Your task to perform on an android device: open a bookmark in the chrome app Image 0: 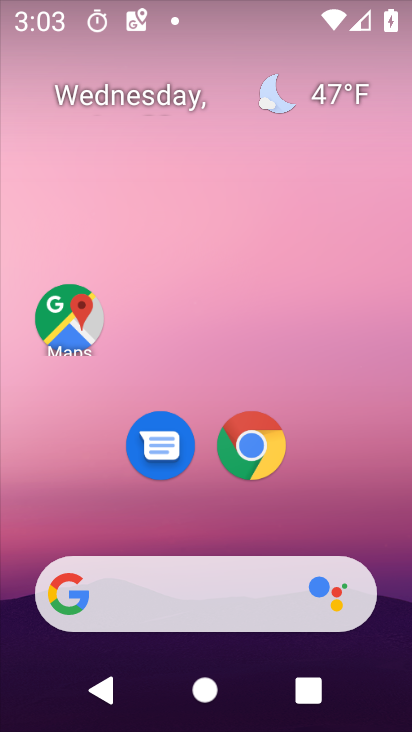
Step 0: click (260, 463)
Your task to perform on an android device: open a bookmark in the chrome app Image 1: 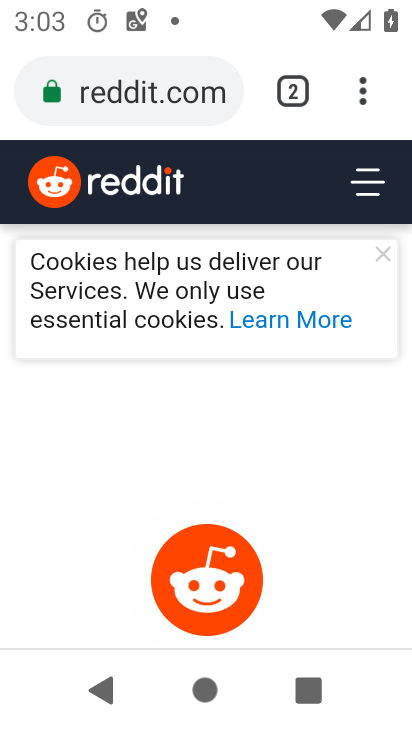
Step 1: click (364, 89)
Your task to perform on an android device: open a bookmark in the chrome app Image 2: 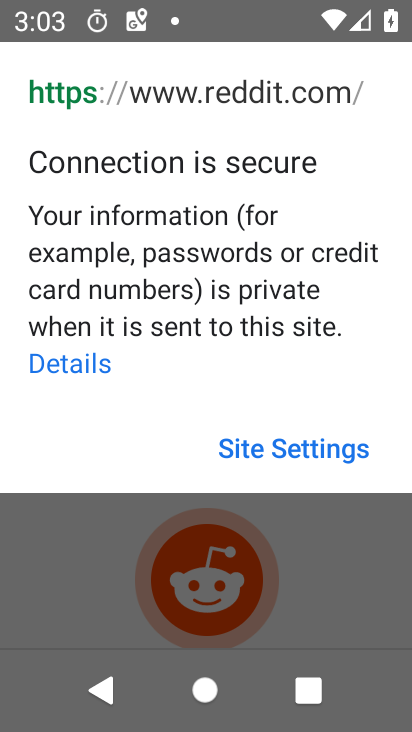
Step 2: click (337, 525)
Your task to perform on an android device: open a bookmark in the chrome app Image 3: 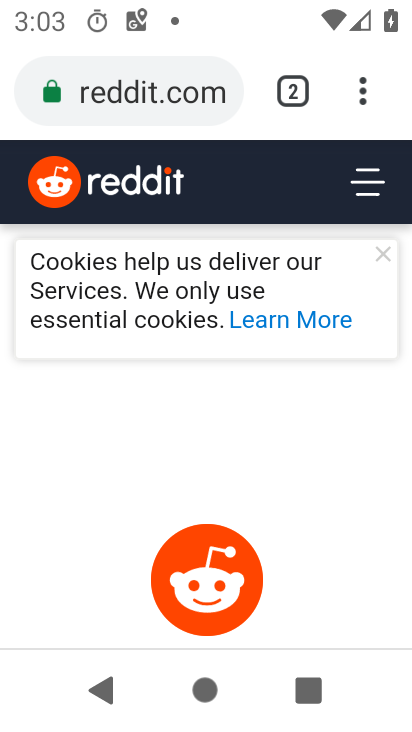
Step 3: click (367, 97)
Your task to perform on an android device: open a bookmark in the chrome app Image 4: 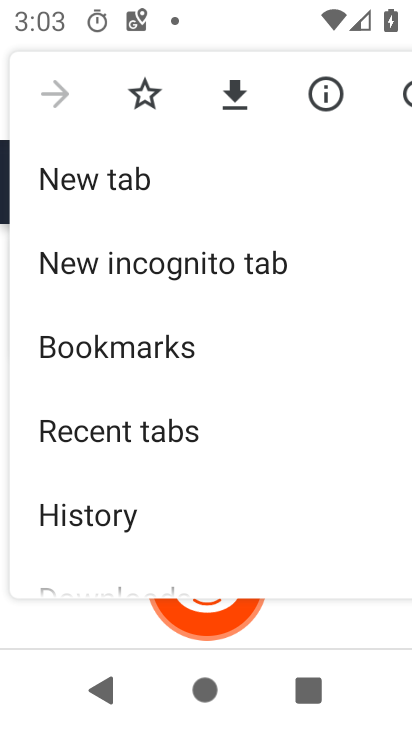
Step 4: click (80, 342)
Your task to perform on an android device: open a bookmark in the chrome app Image 5: 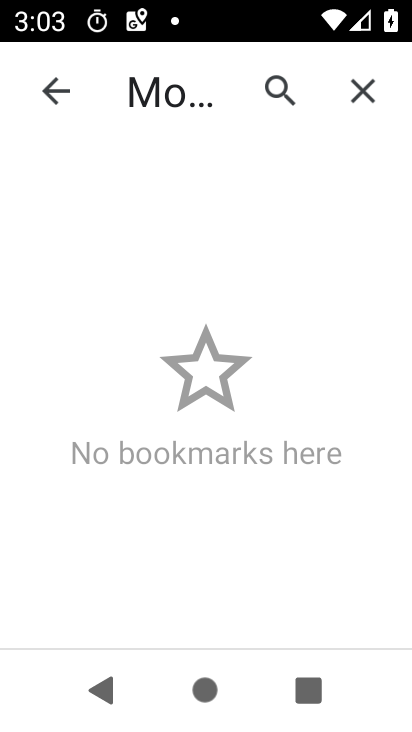
Step 5: task complete